Your task to perform on an android device: Open Chrome and go to settings Image 0: 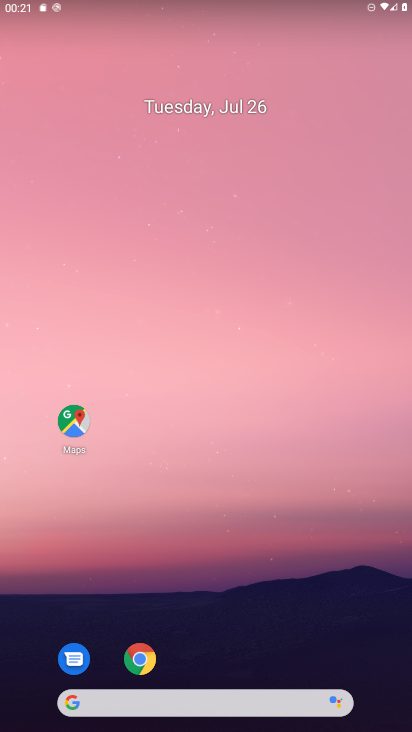
Step 0: press home button
Your task to perform on an android device: Open Chrome and go to settings Image 1: 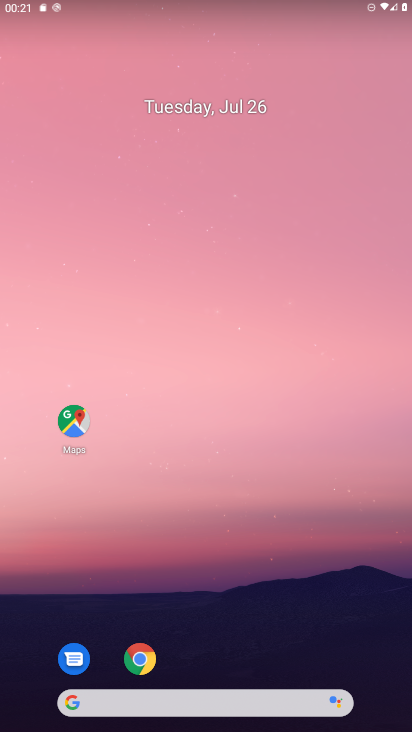
Step 1: drag from (357, 563) to (283, 469)
Your task to perform on an android device: Open Chrome and go to settings Image 2: 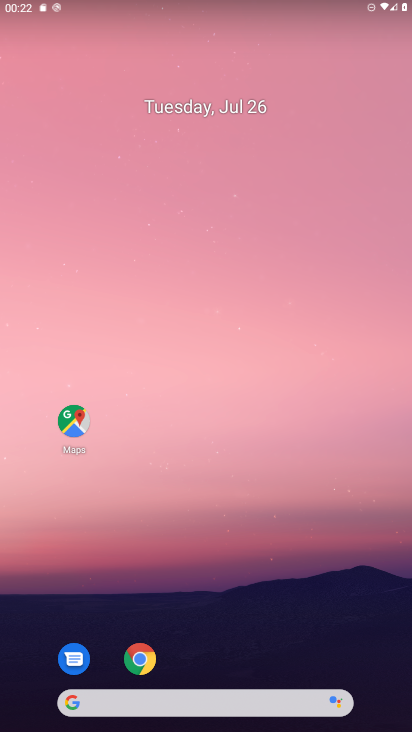
Step 2: click (135, 647)
Your task to perform on an android device: Open Chrome and go to settings Image 3: 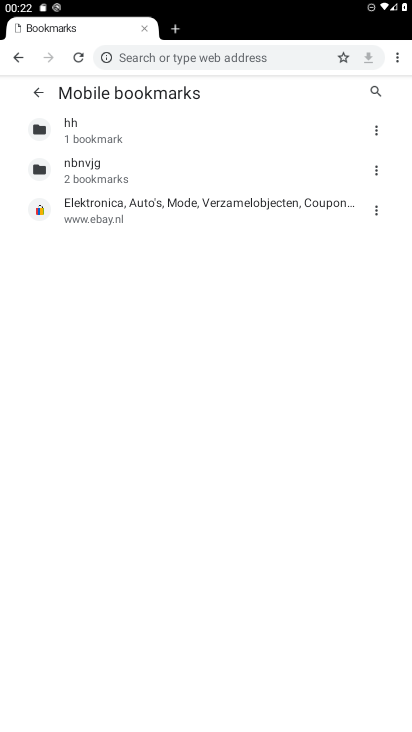
Step 3: task complete